Your task to perform on an android device: read, delete, or share a saved page in the chrome app Image 0: 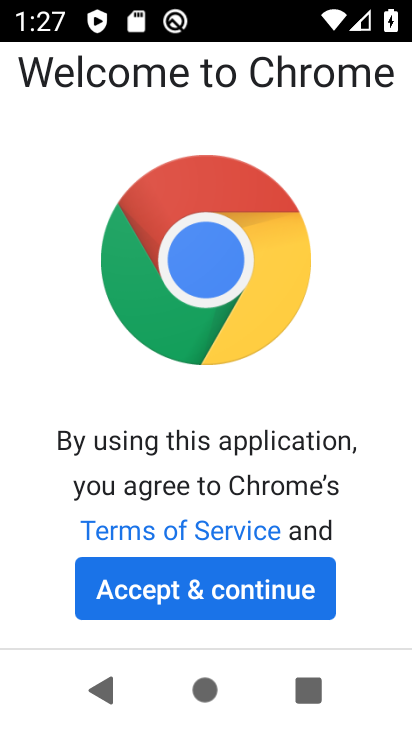
Step 0: click (237, 594)
Your task to perform on an android device: read, delete, or share a saved page in the chrome app Image 1: 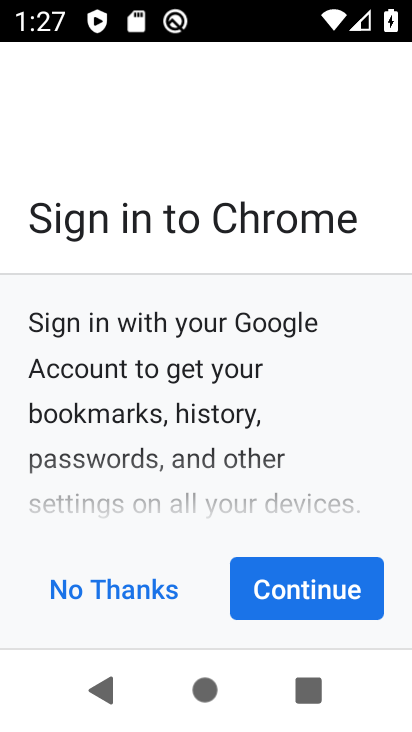
Step 1: click (260, 594)
Your task to perform on an android device: read, delete, or share a saved page in the chrome app Image 2: 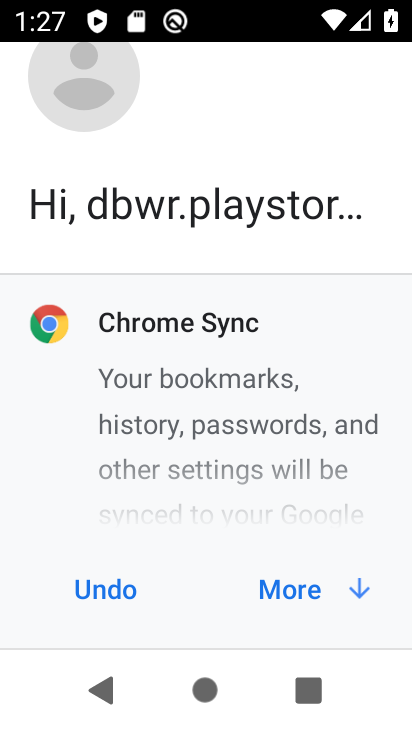
Step 2: click (278, 579)
Your task to perform on an android device: read, delete, or share a saved page in the chrome app Image 3: 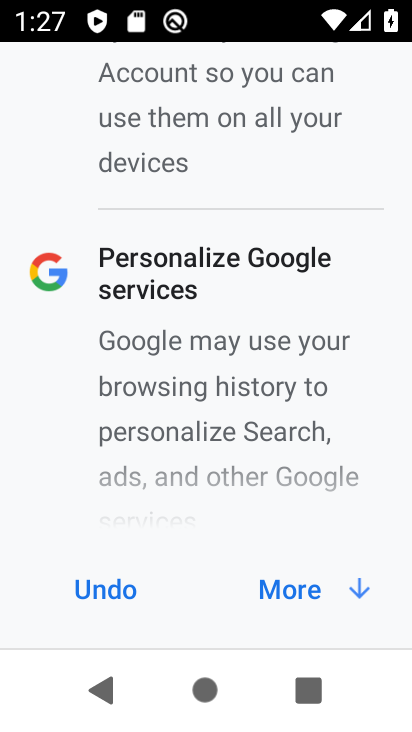
Step 3: click (278, 579)
Your task to perform on an android device: read, delete, or share a saved page in the chrome app Image 4: 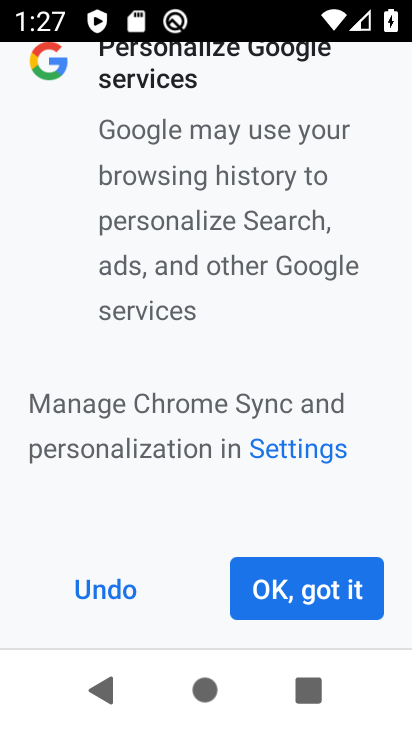
Step 4: click (279, 578)
Your task to perform on an android device: read, delete, or share a saved page in the chrome app Image 5: 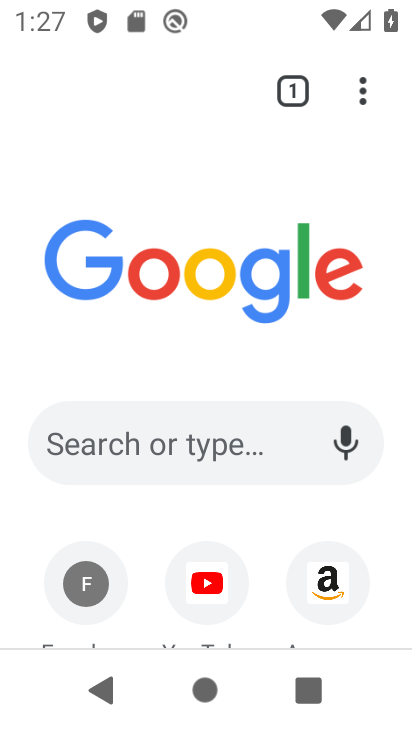
Step 5: task complete